Your task to perform on an android device: turn on data saver in the chrome app Image 0: 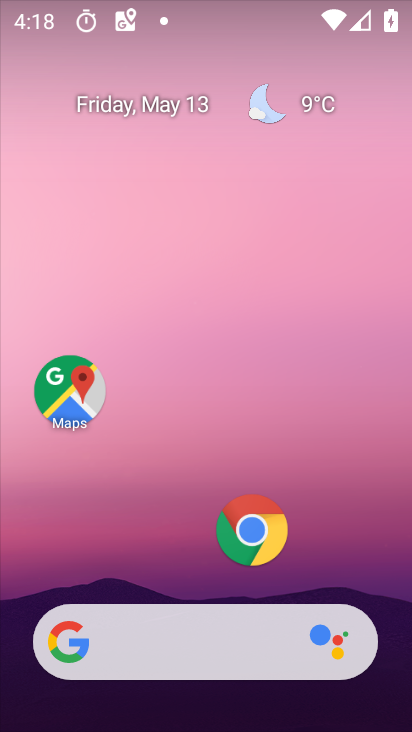
Step 0: click (254, 528)
Your task to perform on an android device: turn on data saver in the chrome app Image 1: 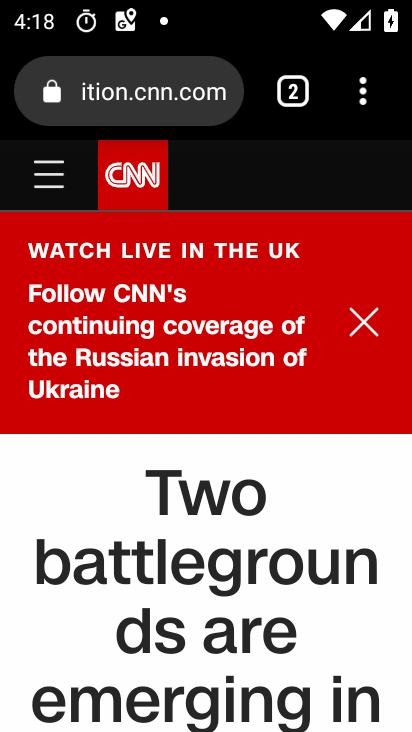
Step 1: click (358, 86)
Your task to perform on an android device: turn on data saver in the chrome app Image 2: 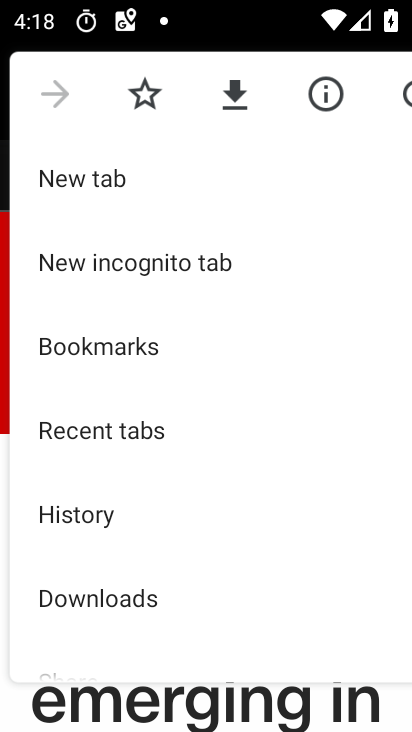
Step 2: drag from (170, 620) to (210, 112)
Your task to perform on an android device: turn on data saver in the chrome app Image 3: 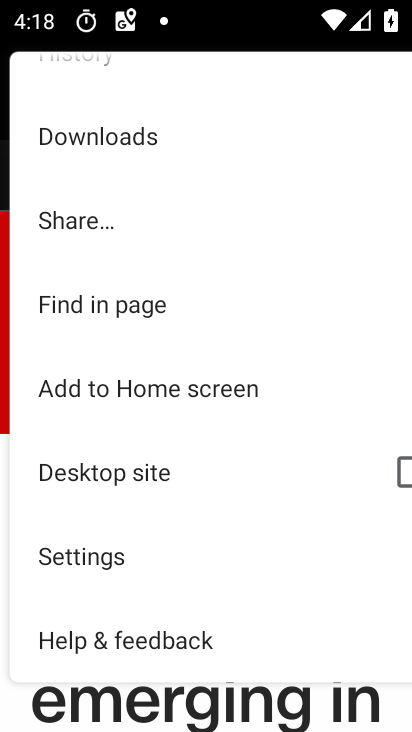
Step 3: click (126, 546)
Your task to perform on an android device: turn on data saver in the chrome app Image 4: 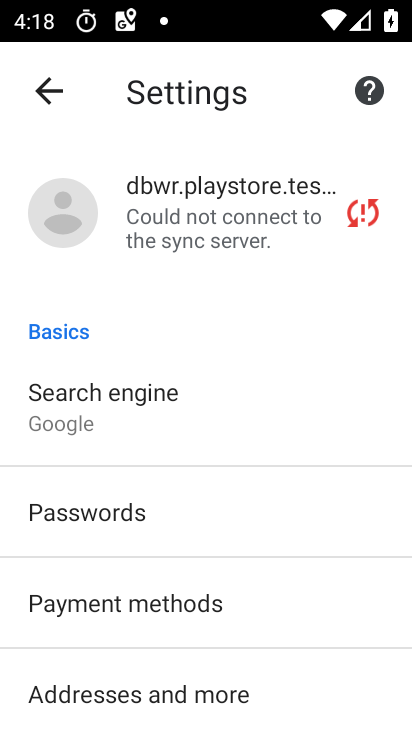
Step 4: drag from (245, 652) to (274, 268)
Your task to perform on an android device: turn on data saver in the chrome app Image 5: 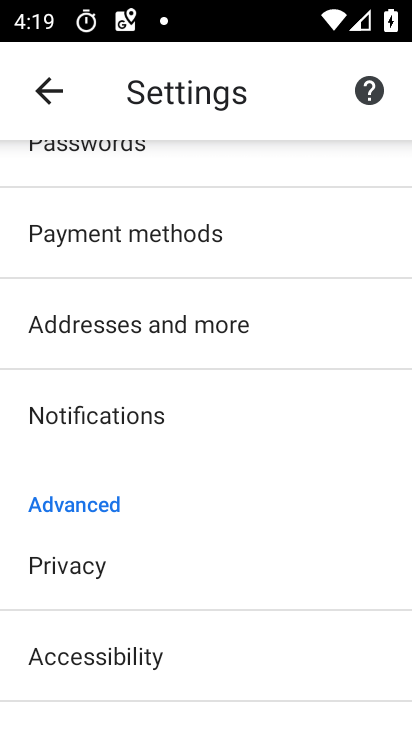
Step 5: drag from (219, 678) to (248, 58)
Your task to perform on an android device: turn on data saver in the chrome app Image 6: 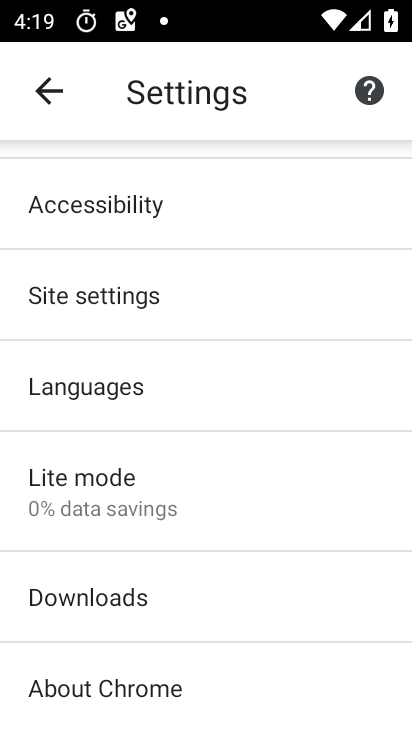
Step 6: click (174, 482)
Your task to perform on an android device: turn on data saver in the chrome app Image 7: 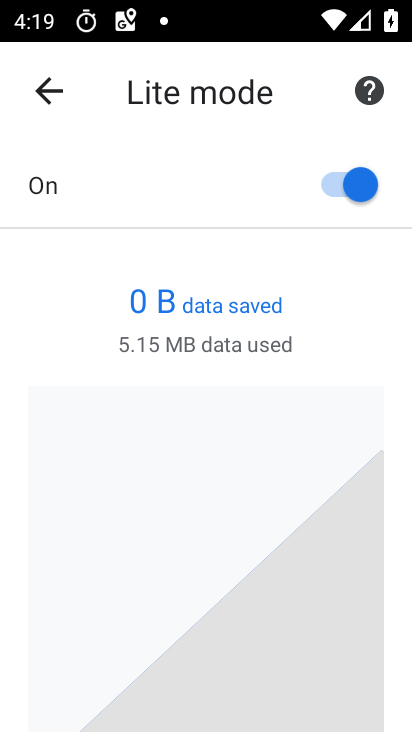
Step 7: task complete